Your task to perform on an android device: toggle airplane mode Image 0: 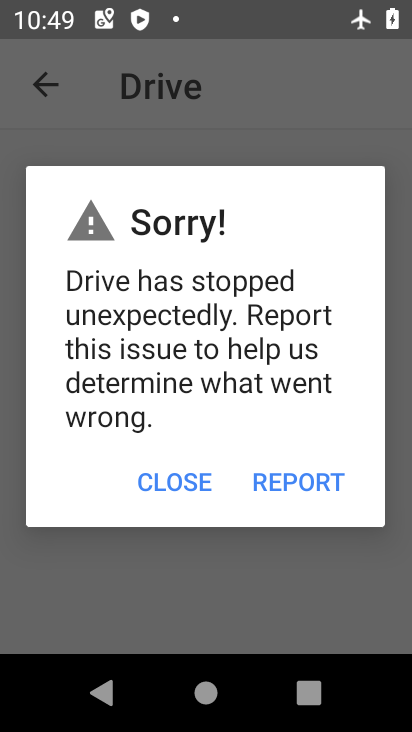
Step 0: press home button
Your task to perform on an android device: toggle airplane mode Image 1: 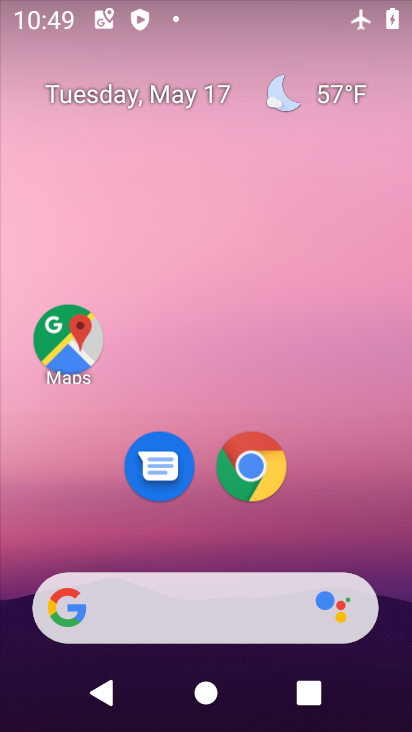
Step 1: drag from (209, 640) to (287, 142)
Your task to perform on an android device: toggle airplane mode Image 2: 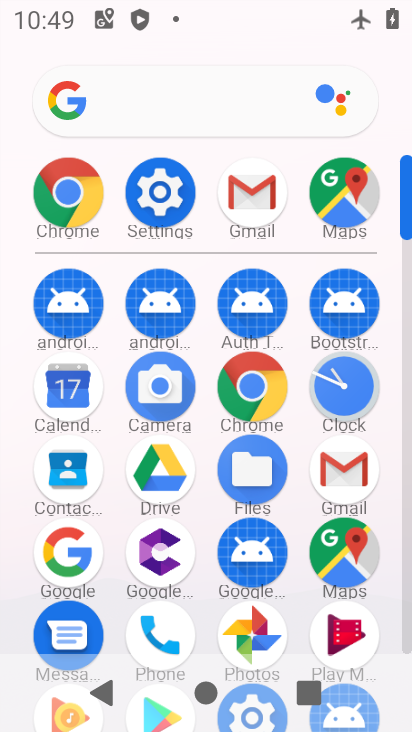
Step 2: click (162, 203)
Your task to perform on an android device: toggle airplane mode Image 3: 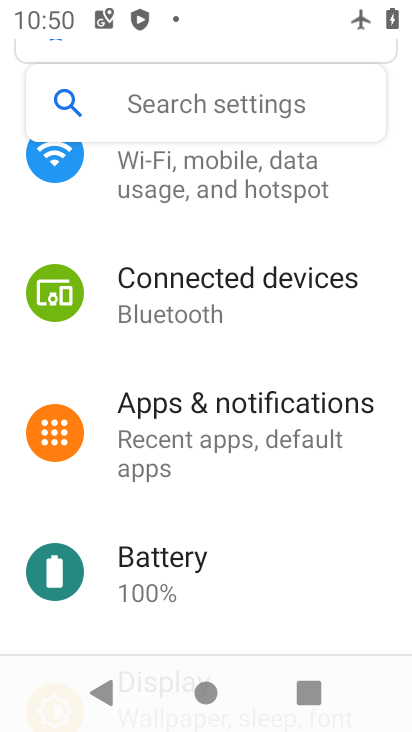
Step 3: click (150, 200)
Your task to perform on an android device: toggle airplane mode Image 4: 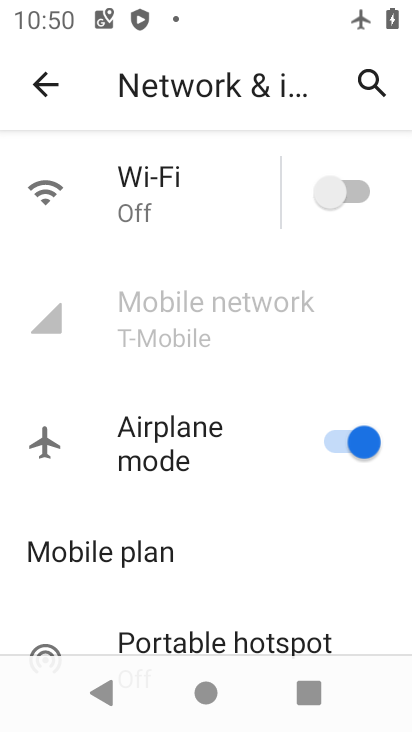
Step 4: click (142, 435)
Your task to perform on an android device: toggle airplane mode Image 5: 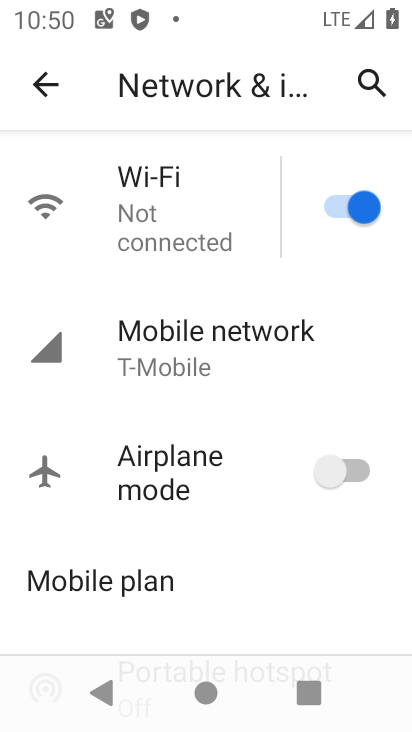
Step 5: task complete